Your task to perform on an android device: Go to wifi settings Image 0: 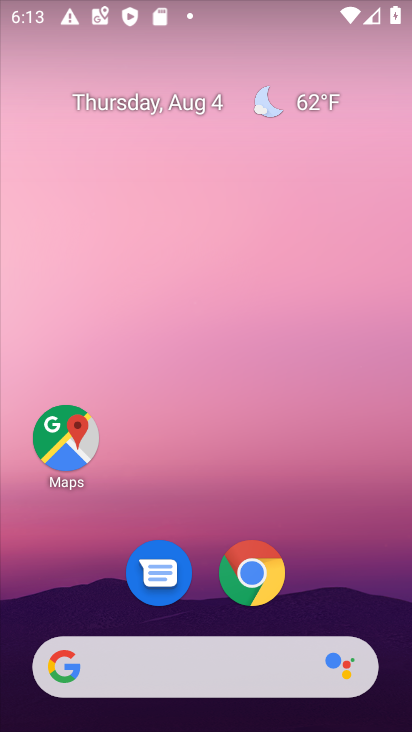
Step 0: drag from (203, 616) to (205, 2)
Your task to perform on an android device: Go to wifi settings Image 1: 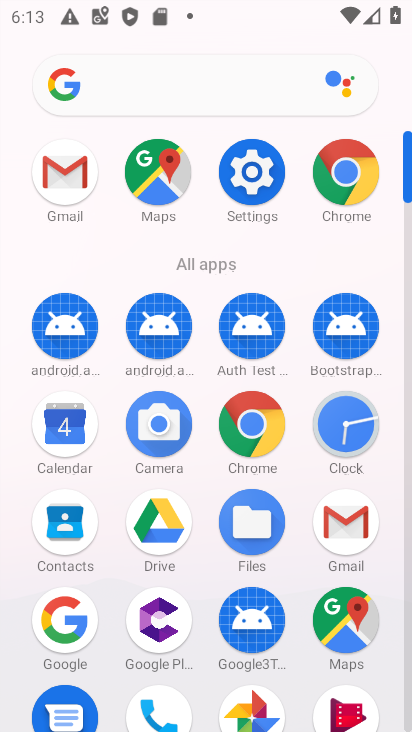
Step 1: click (255, 168)
Your task to perform on an android device: Go to wifi settings Image 2: 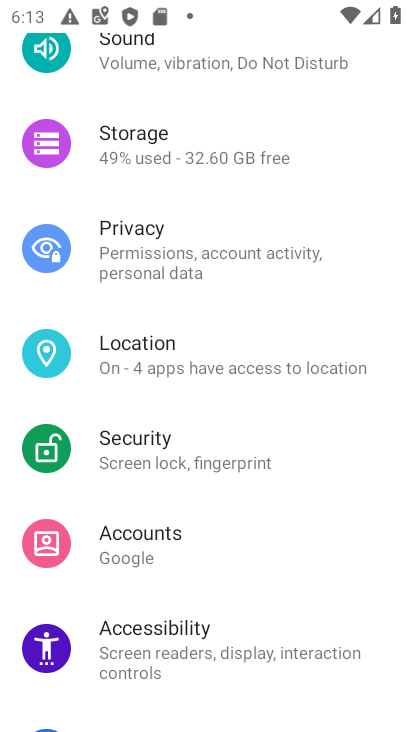
Step 2: drag from (236, 104) to (265, 599)
Your task to perform on an android device: Go to wifi settings Image 3: 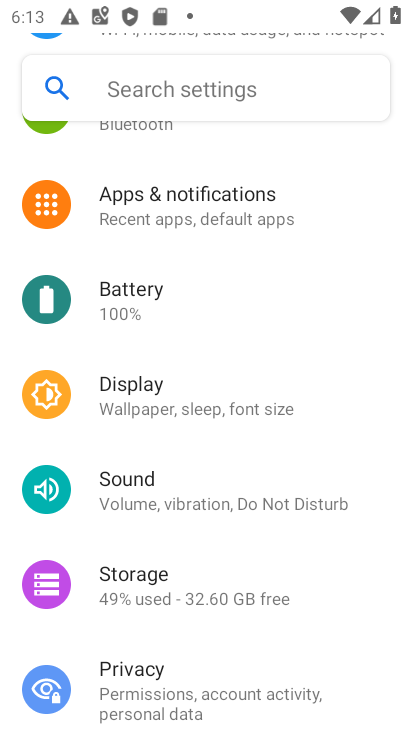
Step 3: drag from (222, 192) to (223, 669)
Your task to perform on an android device: Go to wifi settings Image 4: 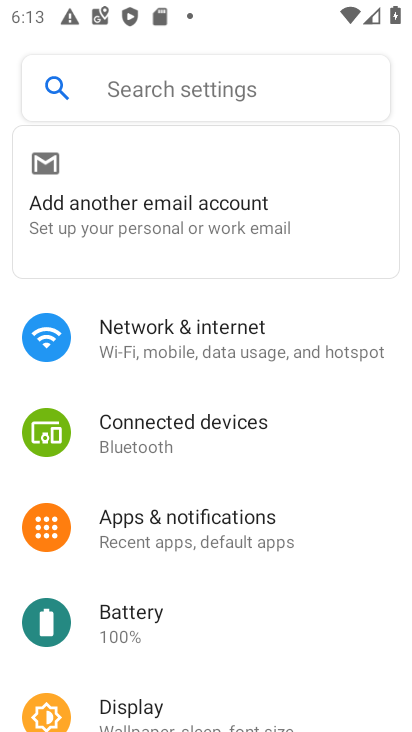
Step 4: click (192, 345)
Your task to perform on an android device: Go to wifi settings Image 5: 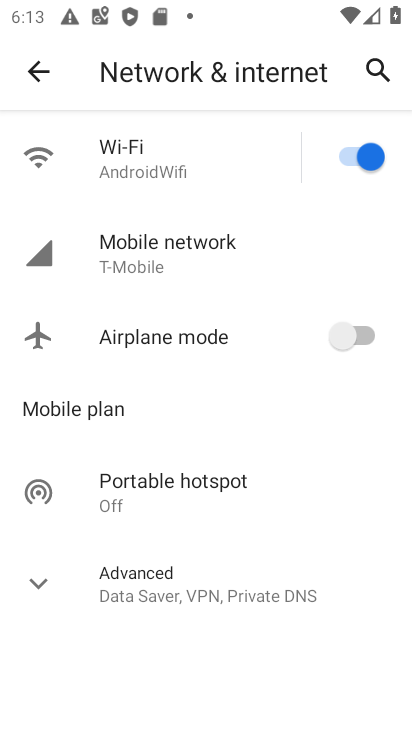
Step 5: click (125, 159)
Your task to perform on an android device: Go to wifi settings Image 6: 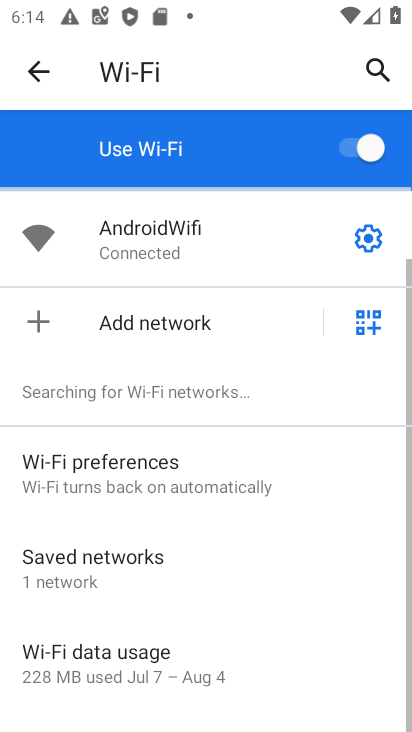
Step 6: click (128, 249)
Your task to perform on an android device: Go to wifi settings Image 7: 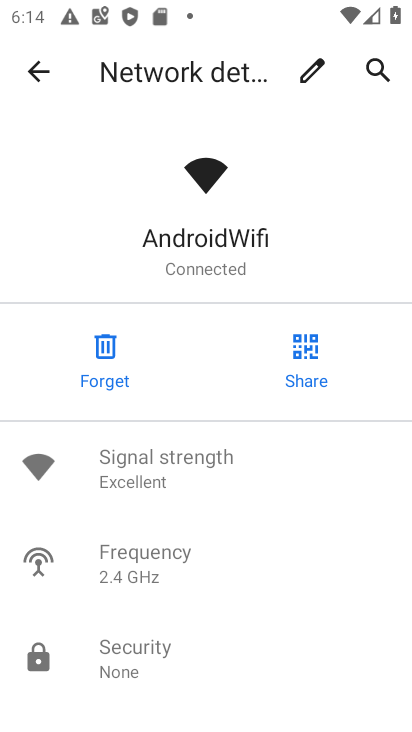
Step 7: task complete